Your task to perform on an android device: uninstall "Google Chat" Image 0: 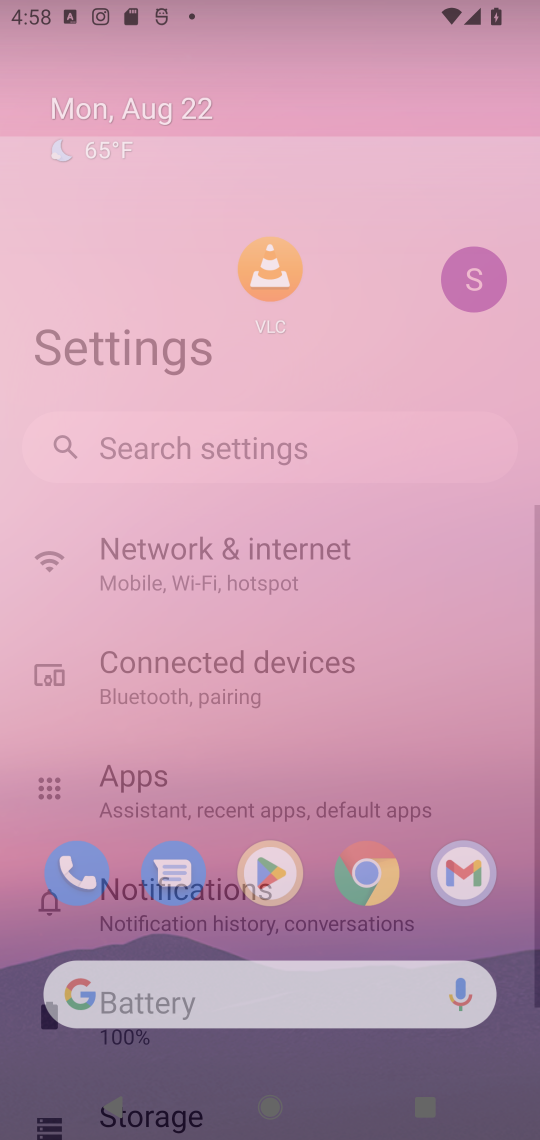
Step 0: press home button
Your task to perform on an android device: uninstall "Google Chat" Image 1: 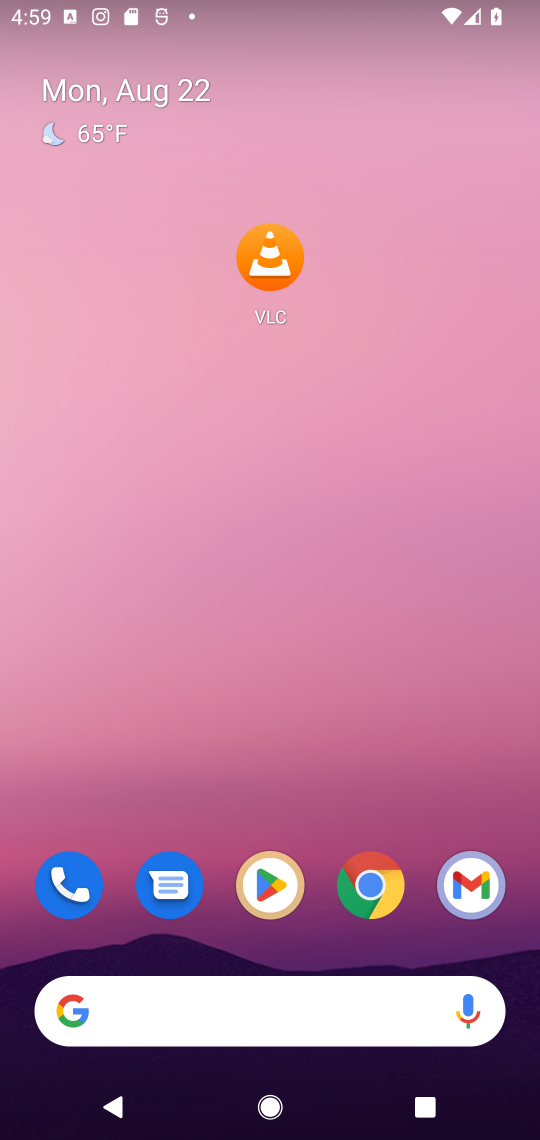
Step 1: click (261, 875)
Your task to perform on an android device: uninstall "Google Chat" Image 2: 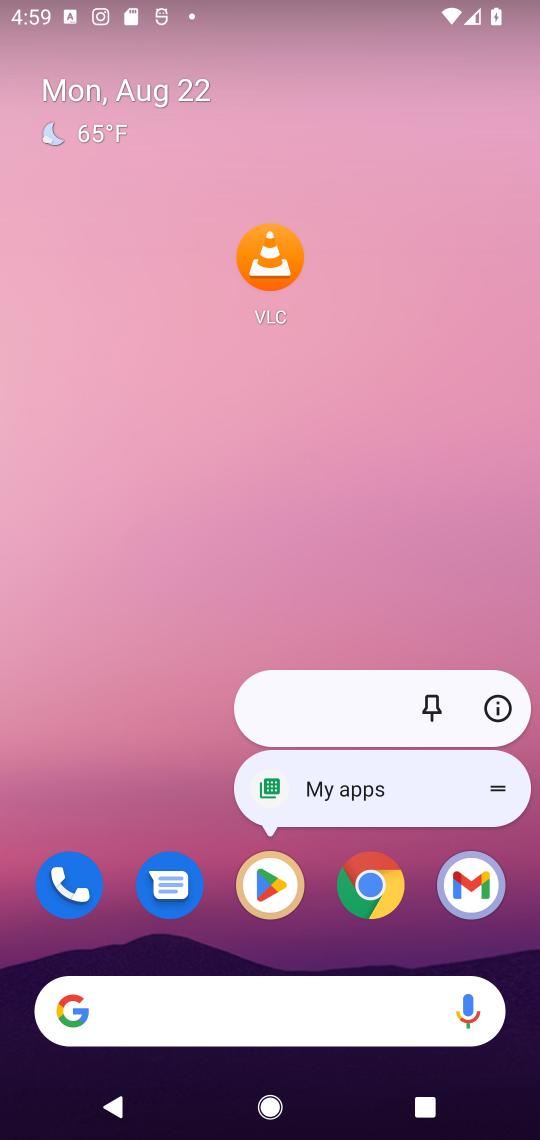
Step 2: click (267, 880)
Your task to perform on an android device: uninstall "Google Chat" Image 3: 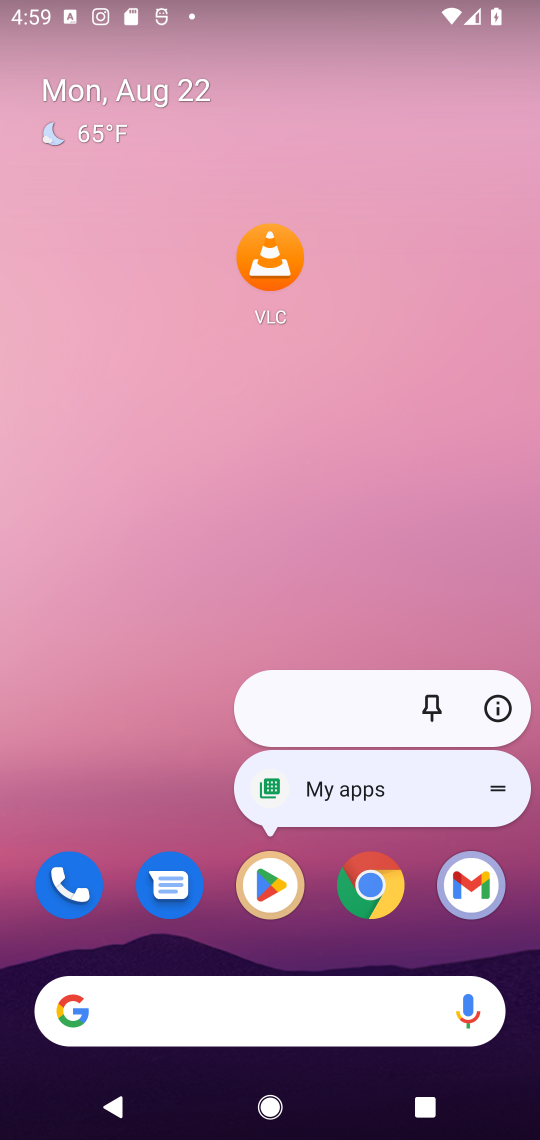
Step 3: click (264, 881)
Your task to perform on an android device: uninstall "Google Chat" Image 4: 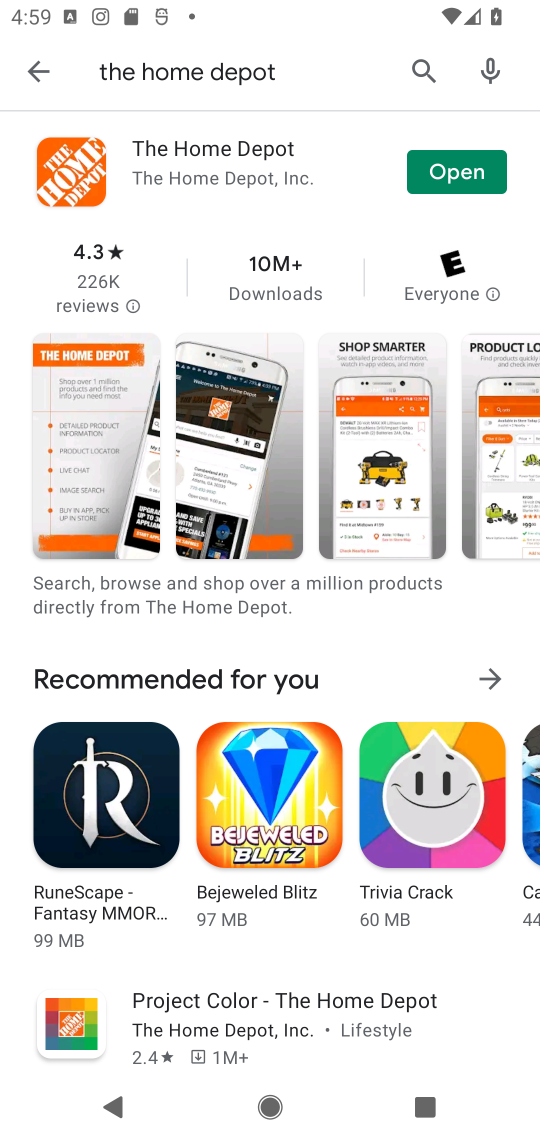
Step 4: click (426, 68)
Your task to perform on an android device: uninstall "Google Chat" Image 5: 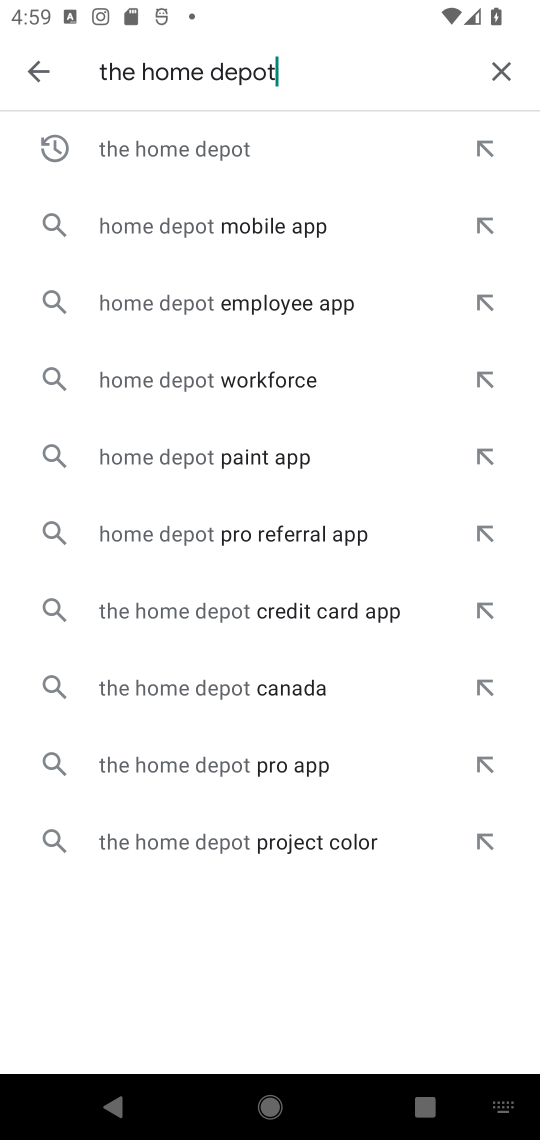
Step 5: click (211, 140)
Your task to perform on an android device: uninstall "Google Chat" Image 6: 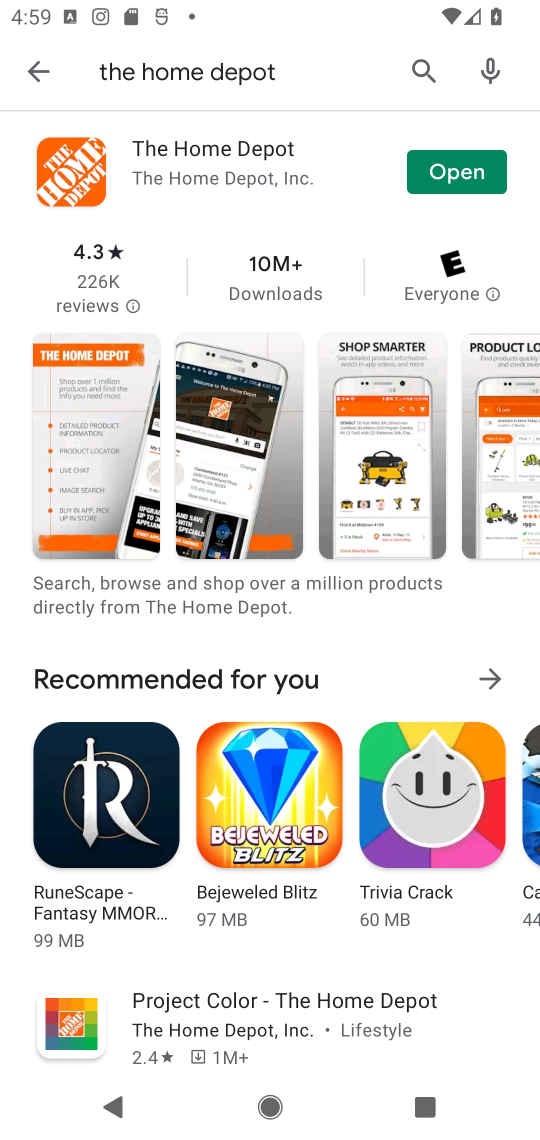
Step 6: click (422, 60)
Your task to perform on an android device: uninstall "Google Chat" Image 7: 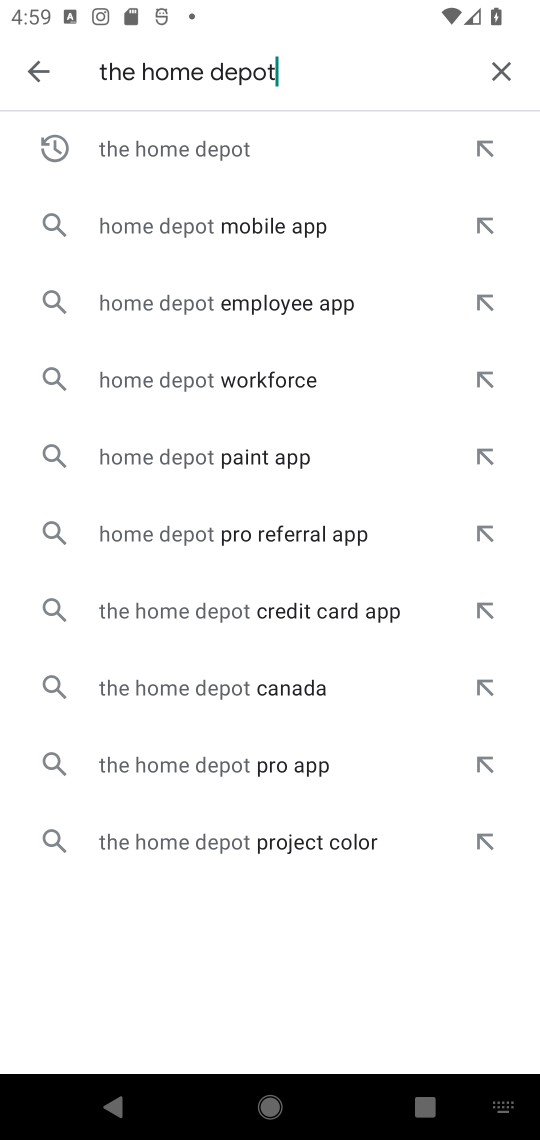
Step 7: click (505, 64)
Your task to perform on an android device: uninstall "Google Chat" Image 8: 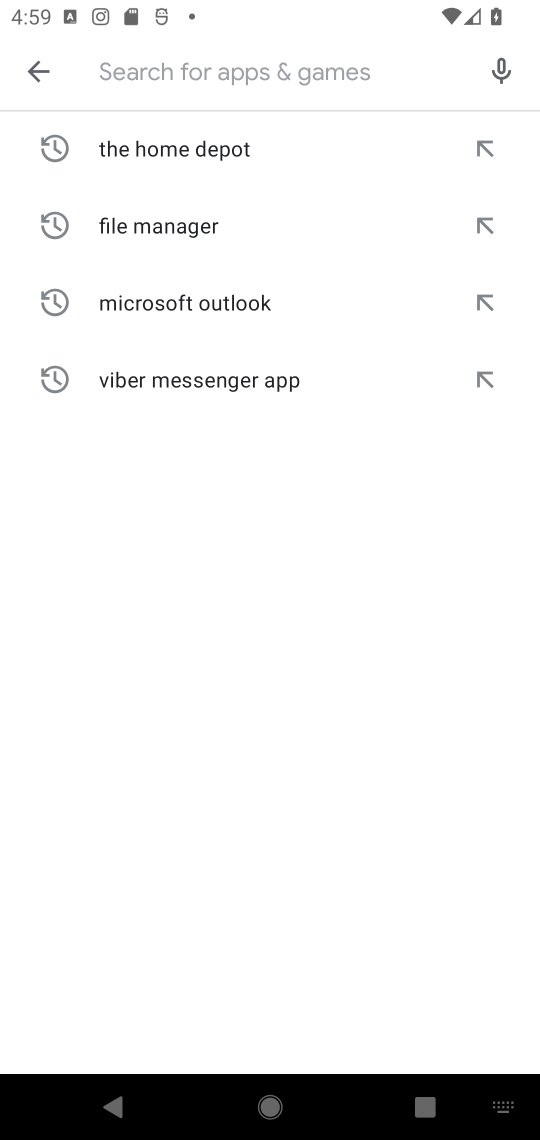
Step 8: type "Google Chat"
Your task to perform on an android device: uninstall "Google Chat" Image 9: 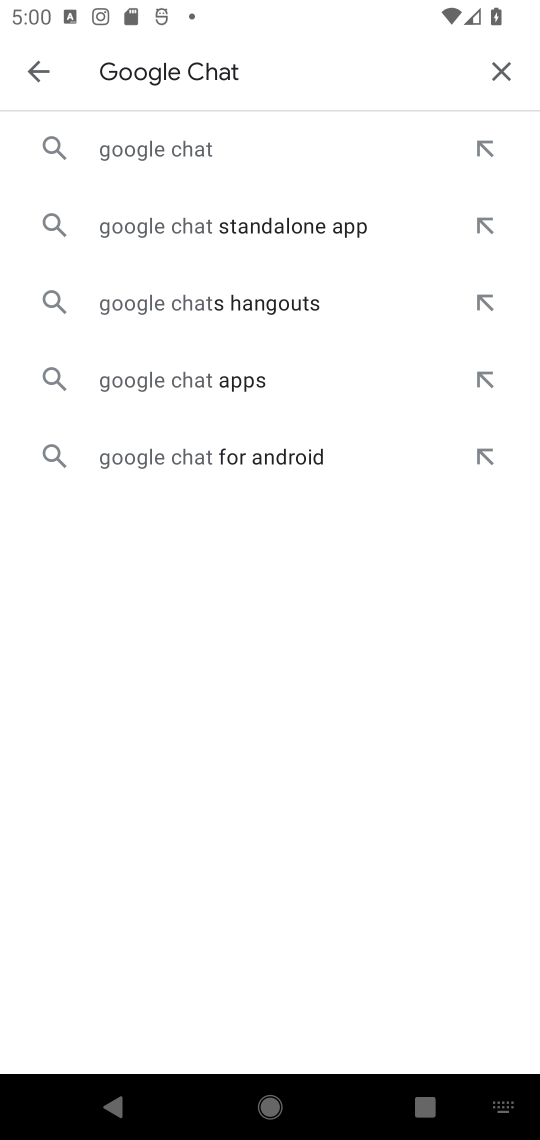
Step 9: click (123, 154)
Your task to perform on an android device: uninstall "Google Chat" Image 10: 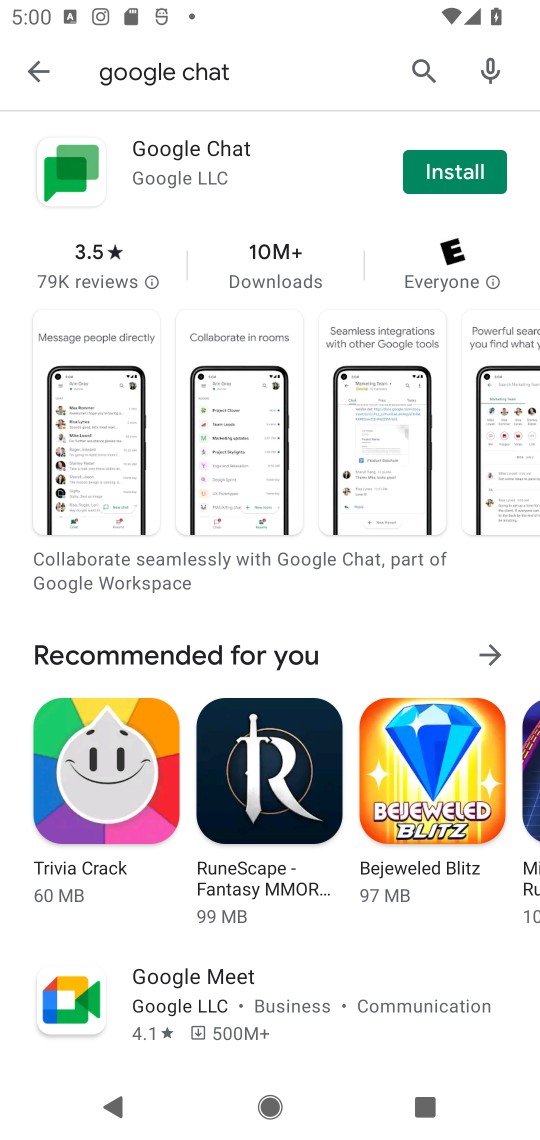
Step 10: task complete